Your task to perform on an android device: turn on location history Image 0: 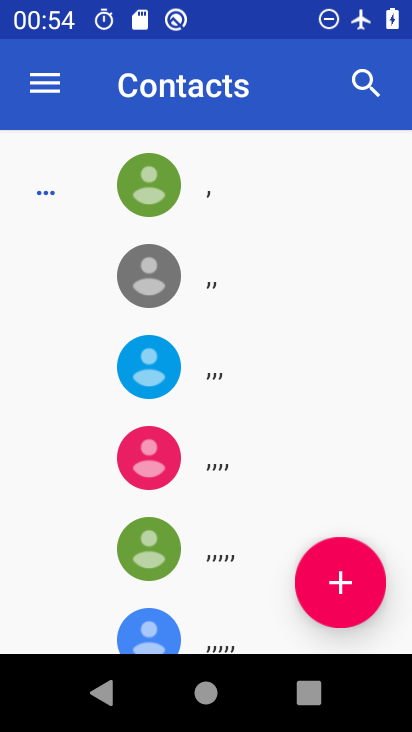
Step 0: press home button
Your task to perform on an android device: turn on location history Image 1: 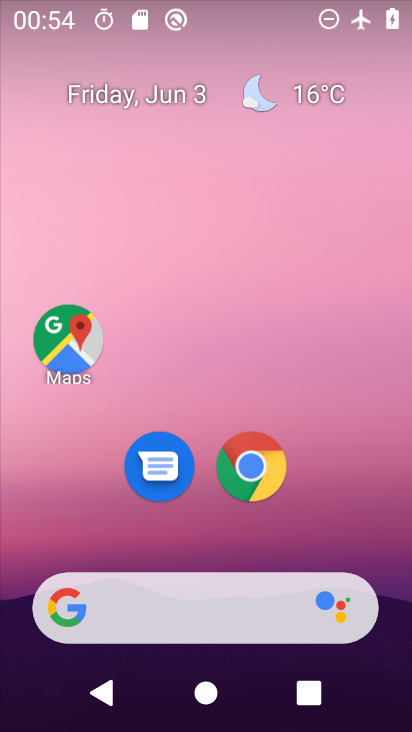
Step 1: drag from (212, 554) to (213, 202)
Your task to perform on an android device: turn on location history Image 2: 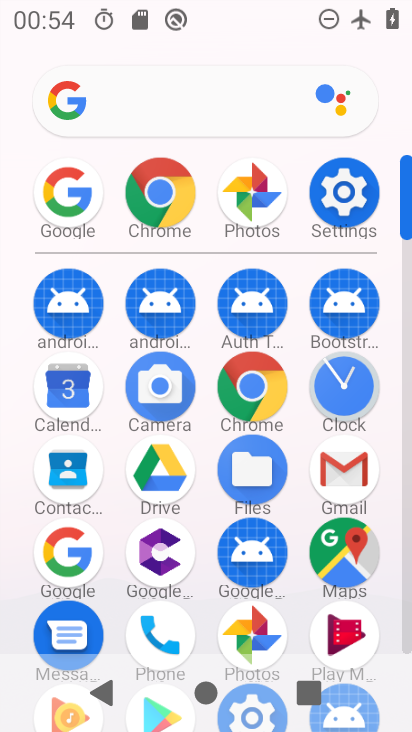
Step 2: click (341, 199)
Your task to perform on an android device: turn on location history Image 3: 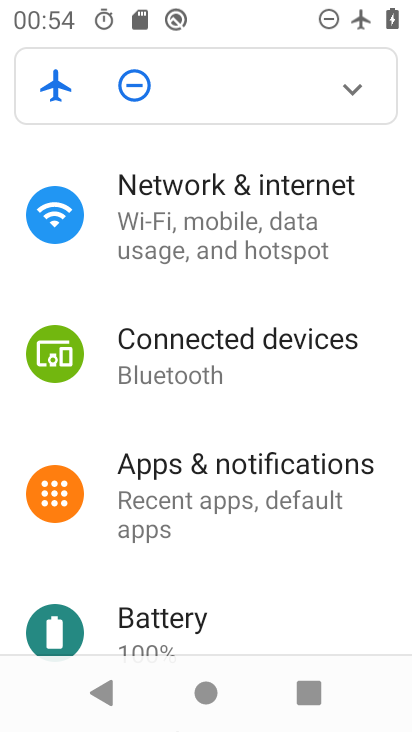
Step 3: drag from (257, 554) to (251, 323)
Your task to perform on an android device: turn on location history Image 4: 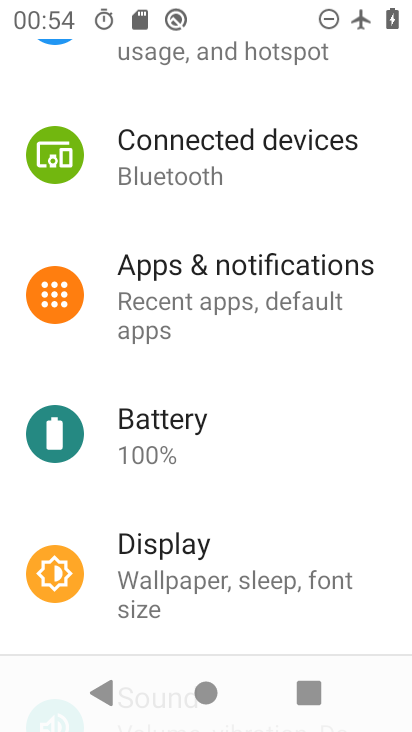
Step 4: drag from (237, 481) to (248, 292)
Your task to perform on an android device: turn on location history Image 5: 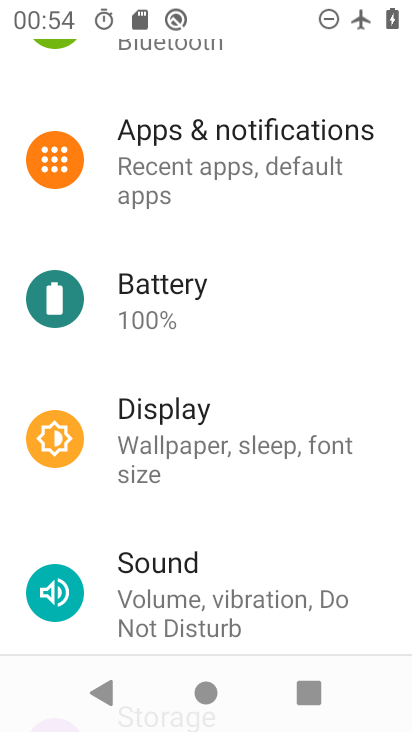
Step 5: drag from (208, 544) to (224, 329)
Your task to perform on an android device: turn on location history Image 6: 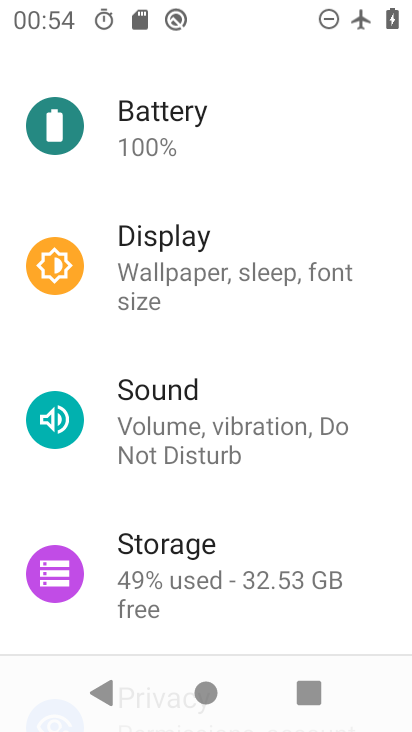
Step 6: drag from (209, 536) to (238, 279)
Your task to perform on an android device: turn on location history Image 7: 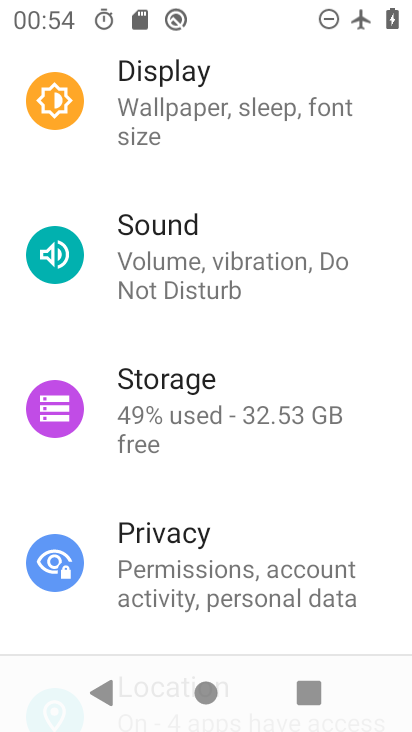
Step 7: drag from (215, 561) to (259, 236)
Your task to perform on an android device: turn on location history Image 8: 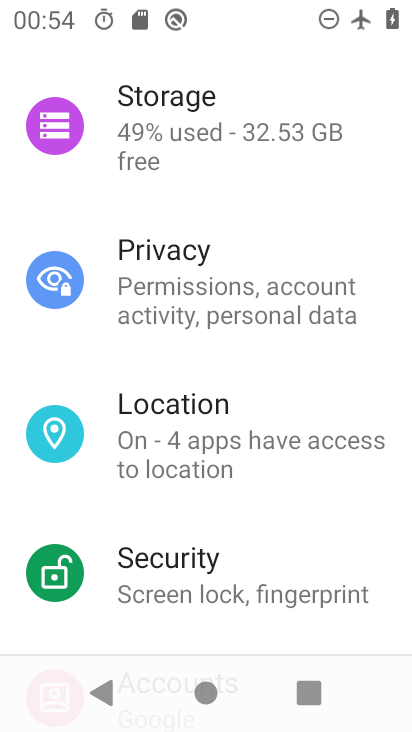
Step 8: click (228, 453)
Your task to perform on an android device: turn on location history Image 9: 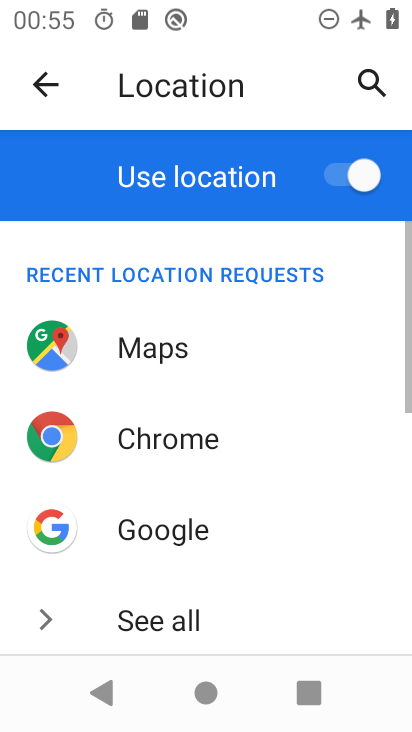
Step 9: drag from (238, 574) to (232, 219)
Your task to perform on an android device: turn on location history Image 10: 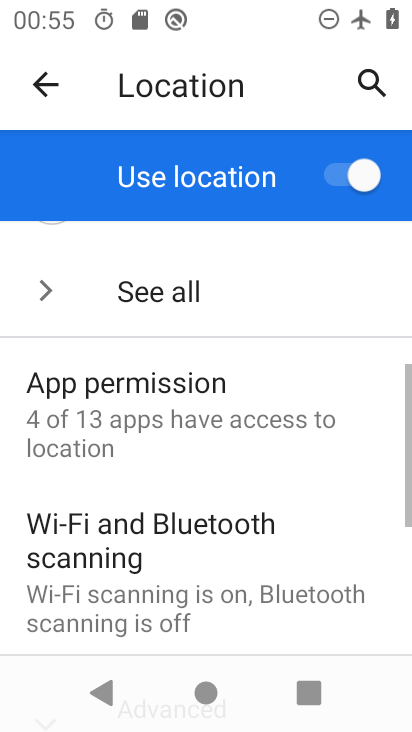
Step 10: drag from (222, 498) to (231, 265)
Your task to perform on an android device: turn on location history Image 11: 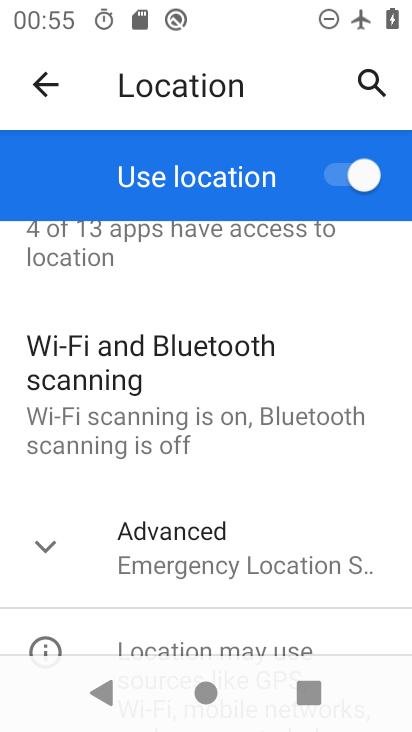
Step 11: drag from (228, 511) to (237, 293)
Your task to perform on an android device: turn on location history Image 12: 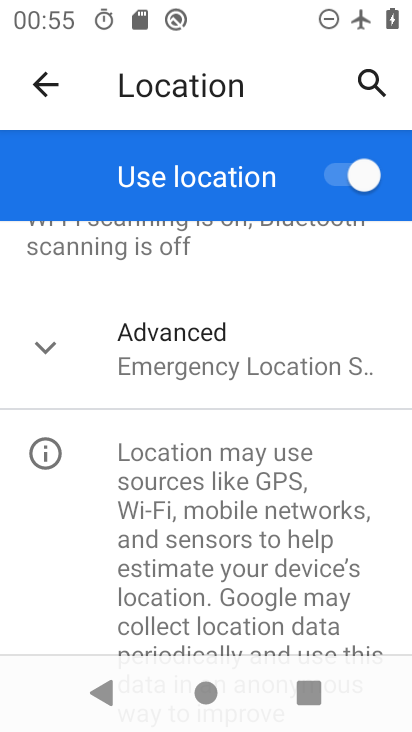
Step 12: click (213, 347)
Your task to perform on an android device: turn on location history Image 13: 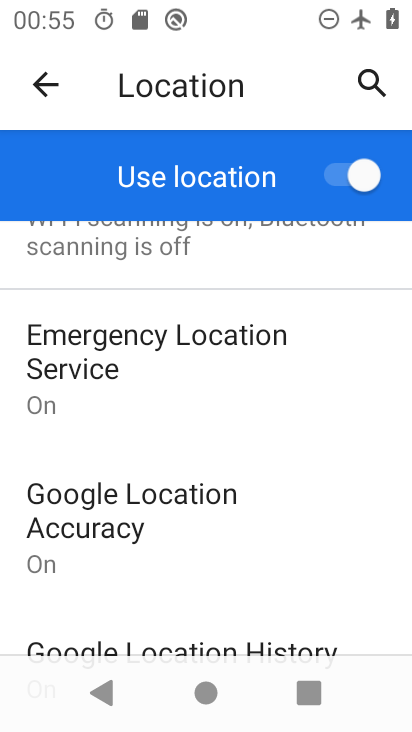
Step 13: drag from (230, 515) to (255, 288)
Your task to perform on an android device: turn on location history Image 14: 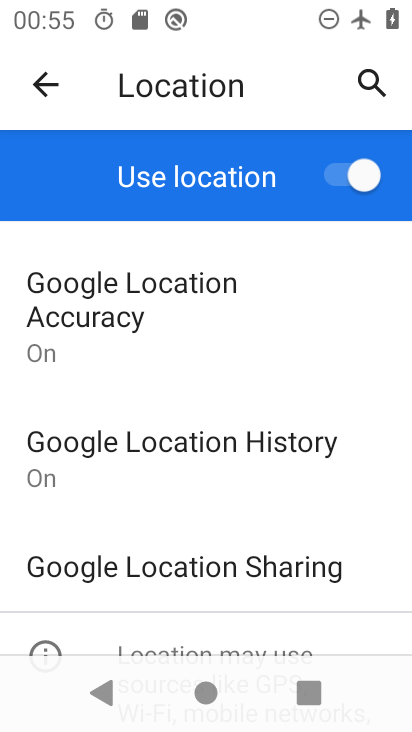
Step 14: click (244, 442)
Your task to perform on an android device: turn on location history Image 15: 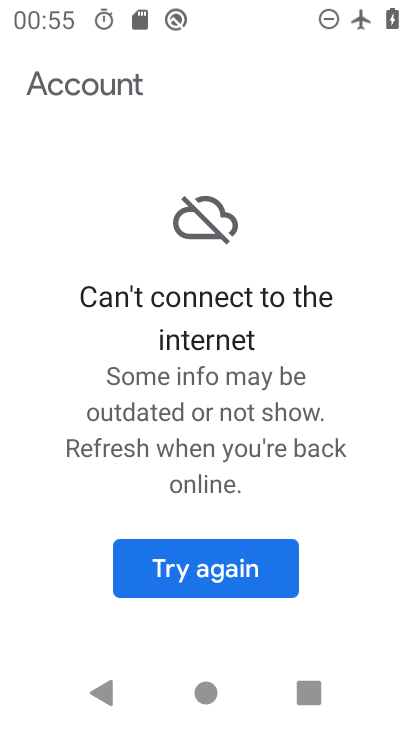
Step 15: task complete